Your task to perform on an android device: Open settings on Google Maps Image 0: 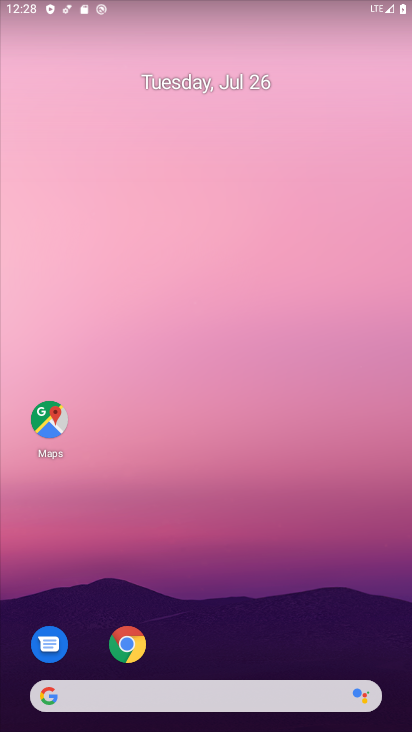
Step 0: click (42, 421)
Your task to perform on an android device: Open settings on Google Maps Image 1: 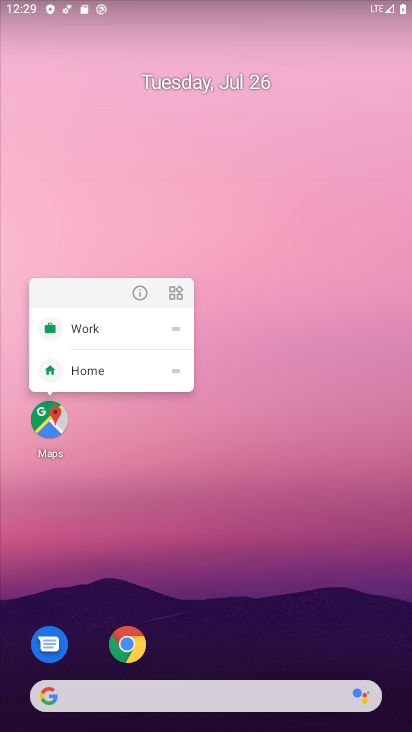
Step 1: click (48, 424)
Your task to perform on an android device: Open settings on Google Maps Image 2: 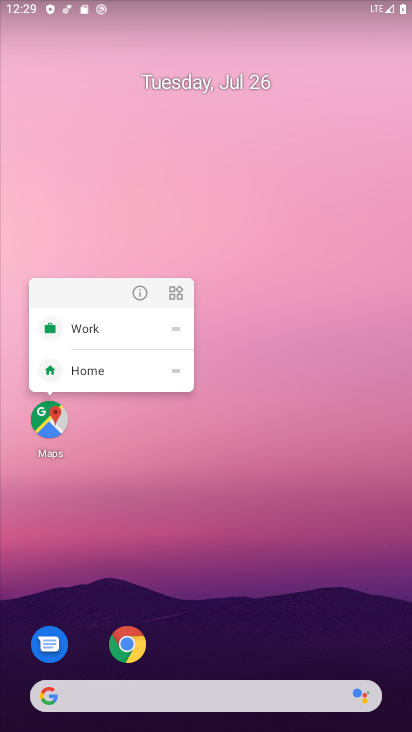
Step 2: click (48, 424)
Your task to perform on an android device: Open settings on Google Maps Image 3: 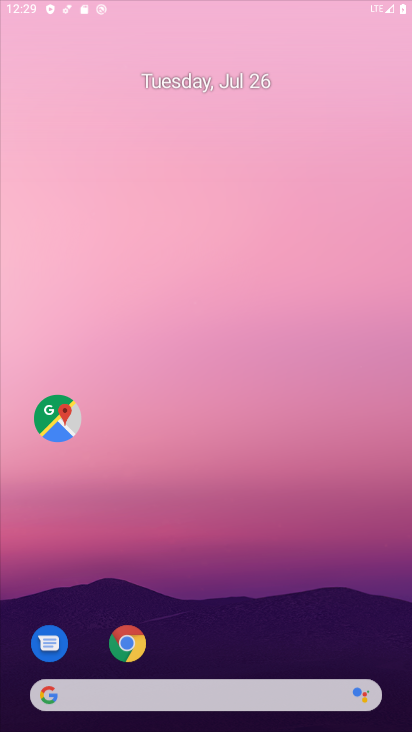
Step 3: click (48, 424)
Your task to perform on an android device: Open settings on Google Maps Image 4: 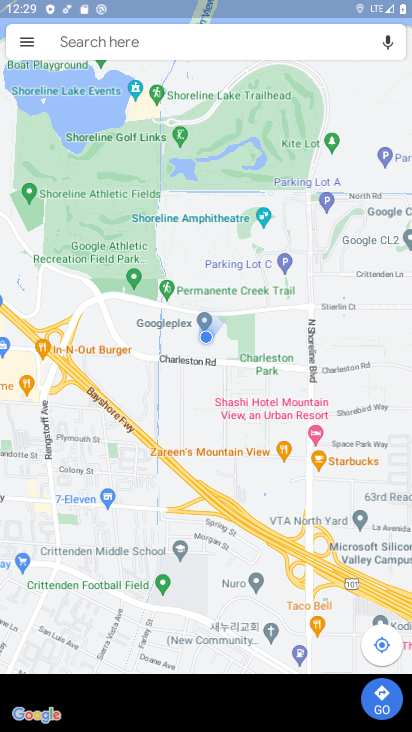
Step 4: click (25, 36)
Your task to perform on an android device: Open settings on Google Maps Image 5: 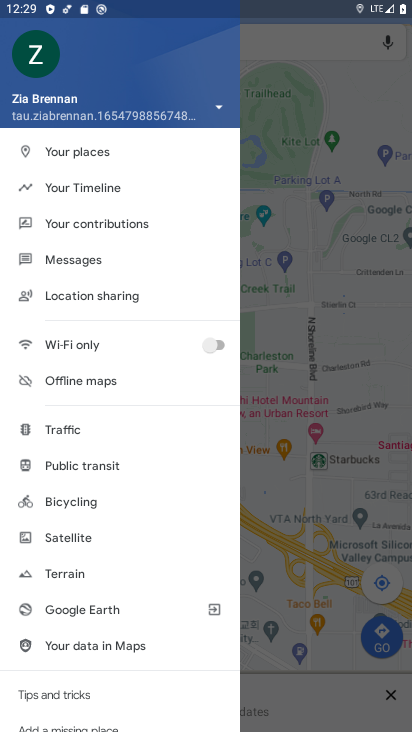
Step 5: drag from (111, 629) to (125, 117)
Your task to perform on an android device: Open settings on Google Maps Image 6: 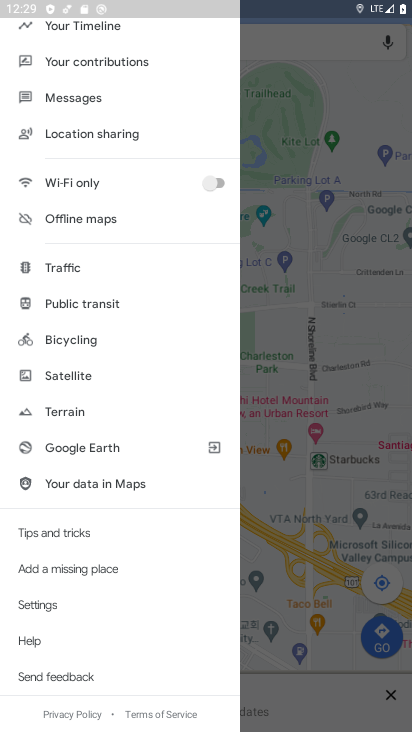
Step 6: click (48, 605)
Your task to perform on an android device: Open settings on Google Maps Image 7: 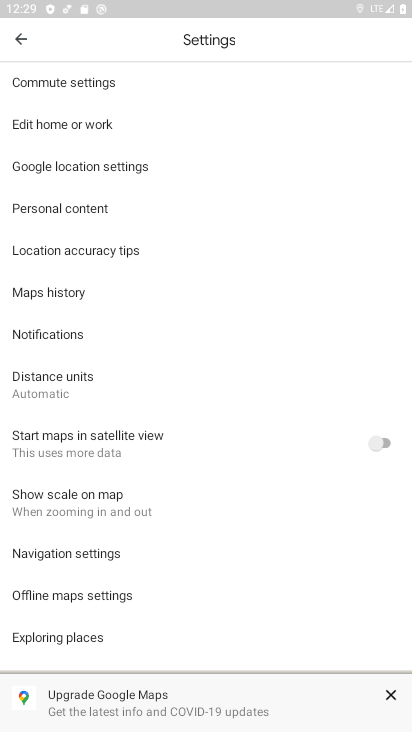
Step 7: task complete